Your task to perform on an android device: check battery use Image 0: 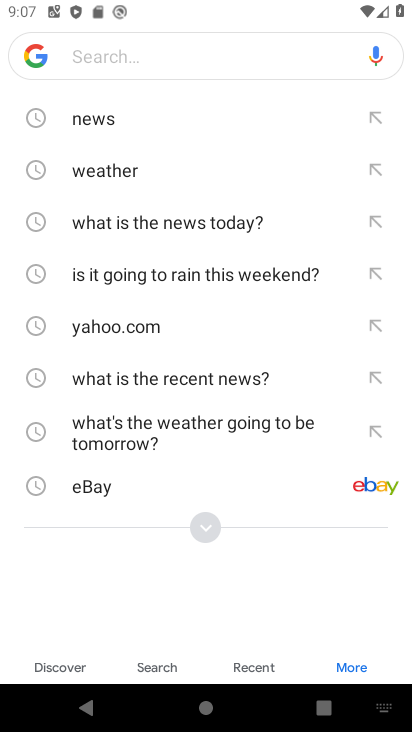
Step 0: drag from (240, 8) to (224, 531)
Your task to perform on an android device: check battery use Image 1: 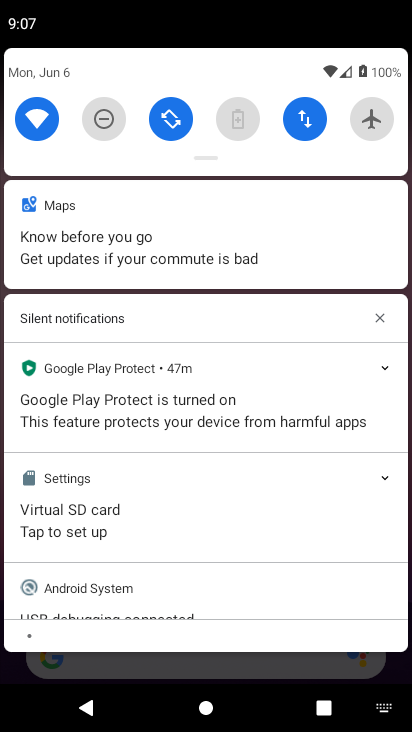
Step 1: click (227, 130)
Your task to perform on an android device: check battery use Image 2: 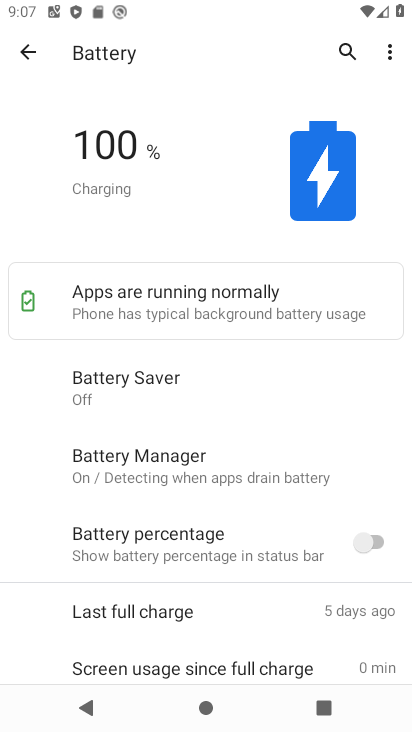
Step 2: click (387, 56)
Your task to perform on an android device: check battery use Image 3: 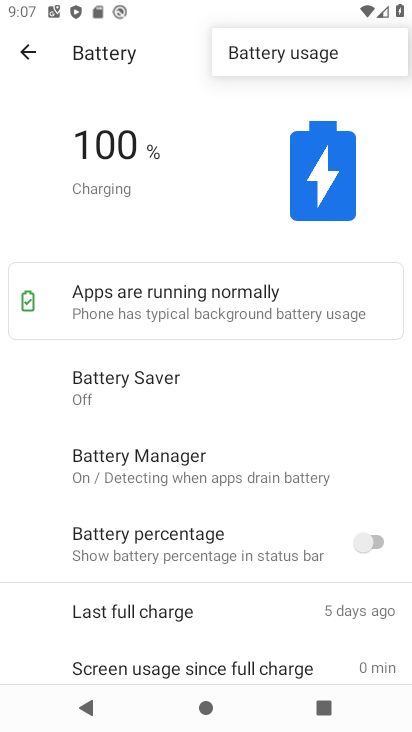
Step 3: click (329, 54)
Your task to perform on an android device: check battery use Image 4: 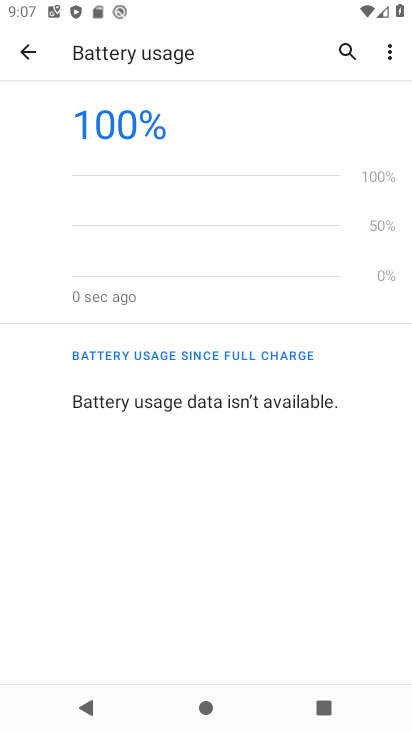
Step 4: task complete